Your task to perform on an android device: Go to Google Image 0: 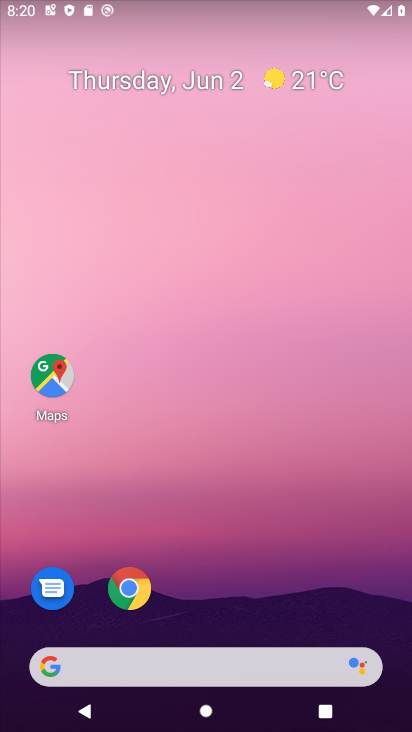
Step 0: drag from (220, 676) to (259, 104)
Your task to perform on an android device: Go to Google Image 1: 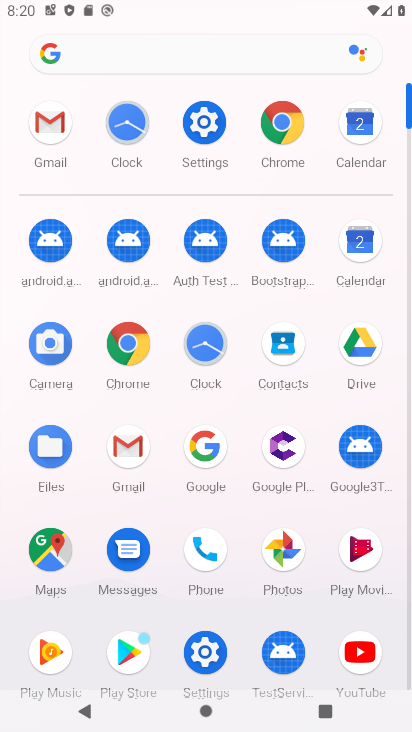
Step 1: click (210, 463)
Your task to perform on an android device: Go to Google Image 2: 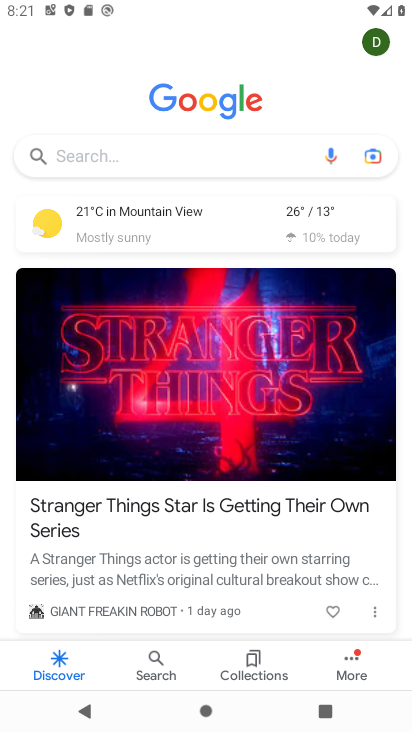
Step 2: task complete